Your task to perform on an android device: Open display settings Image 0: 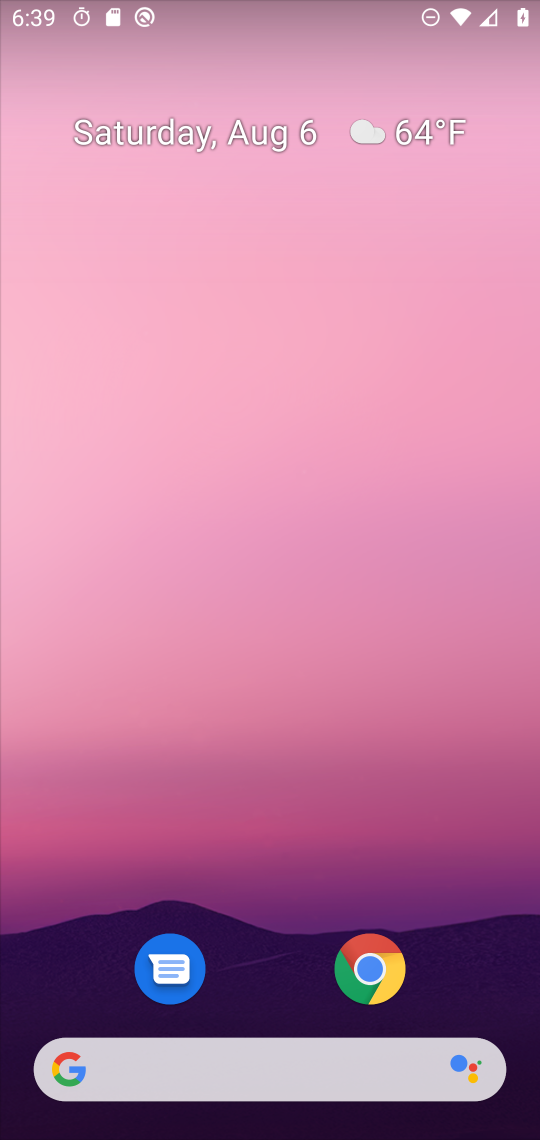
Step 0: press home button
Your task to perform on an android device: Open display settings Image 1: 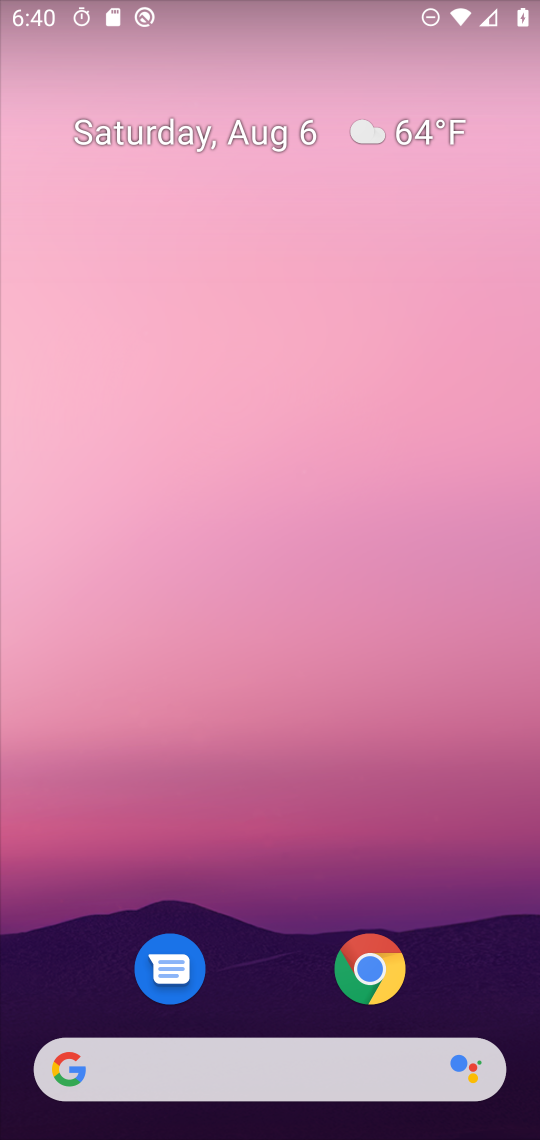
Step 1: drag from (287, 987) to (176, 338)
Your task to perform on an android device: Open display settings Image 2: 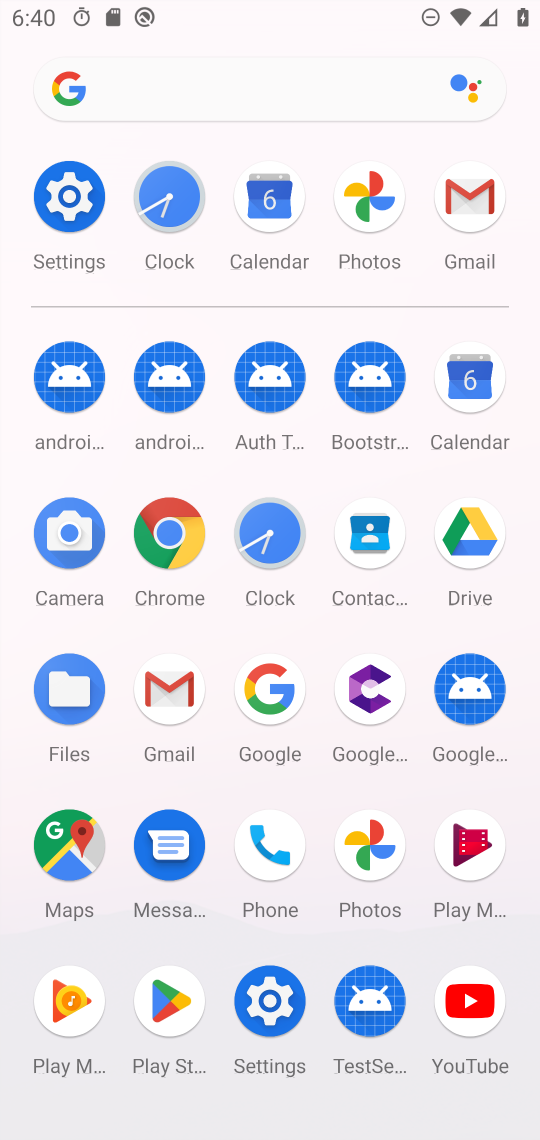
Step 2: click (75, 219)
Your task to perform on an android device: Open display settings Image 3: 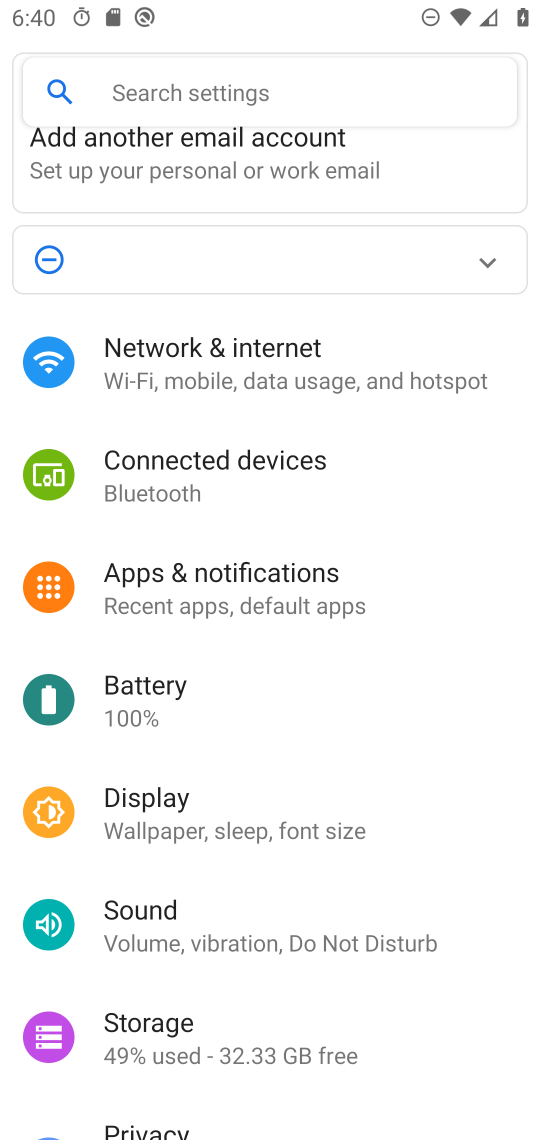
Step 3: click (156, 809)
Your task to perform on an android device: Open display settings Image 4: 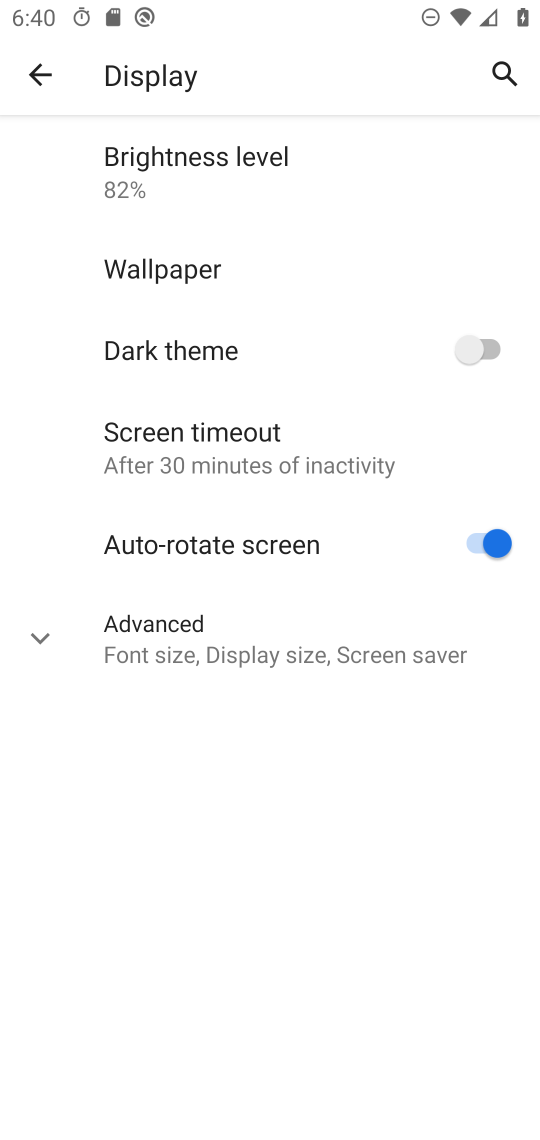
Step 4: task complete